Your task to perform on an android device: turn off sleep mode Image 0: 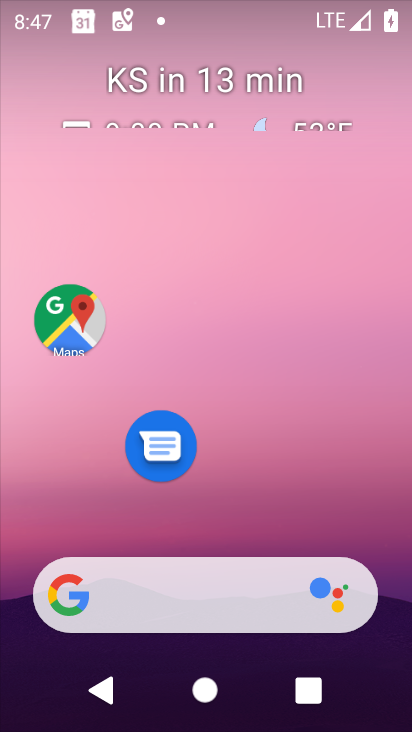
Step 0: drag from (240, 554) to (251, 3)
Your task to perform on an android device: turn off sleep mode Image 1: 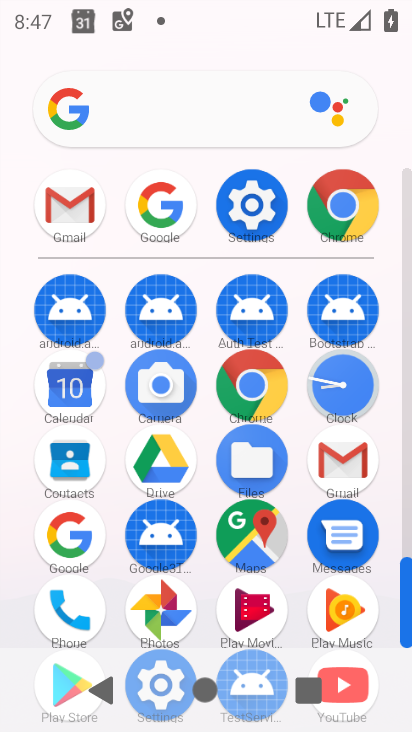
Step 1: click (268, 188)
Your task to perform on an android device: turn off sleep mode Image 2: 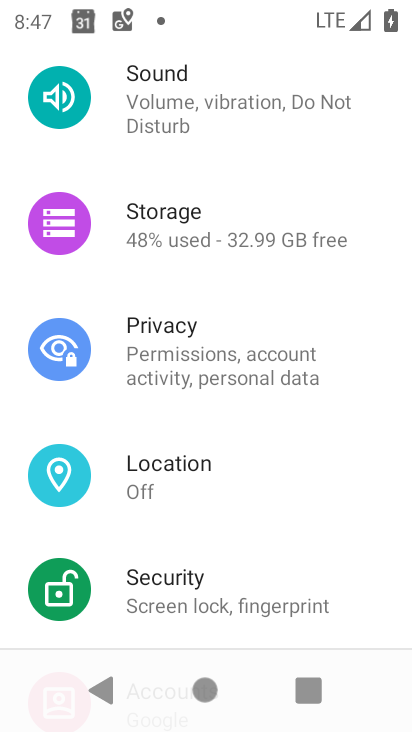
Step 2: drag from (159, 183) to (165, 478)
Your task to perform on an android device: turn off sleep mode Image 3: 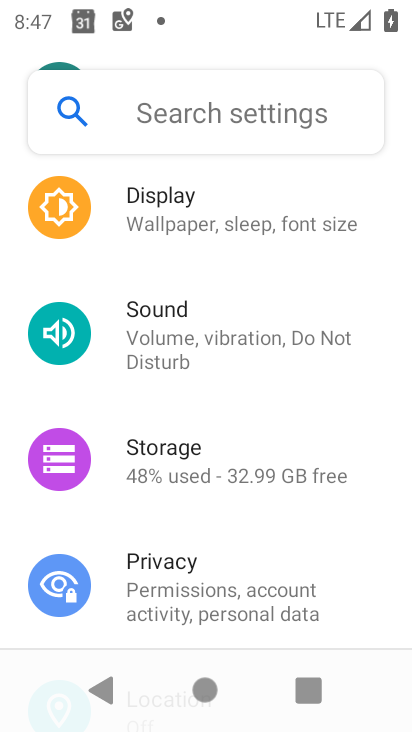
Step 3: click (159, 229)
Your task to perform on an android device: turn off sleep mode Image 4: 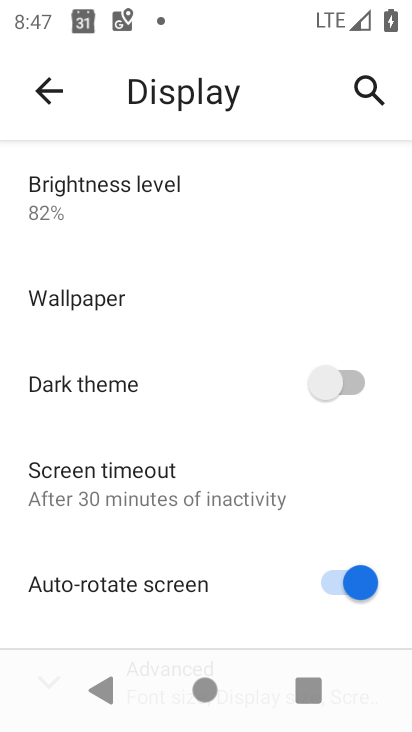
Step 4: task complete